Your task to perform on an android device: turn on showing notifications on the lock screen Image 0: 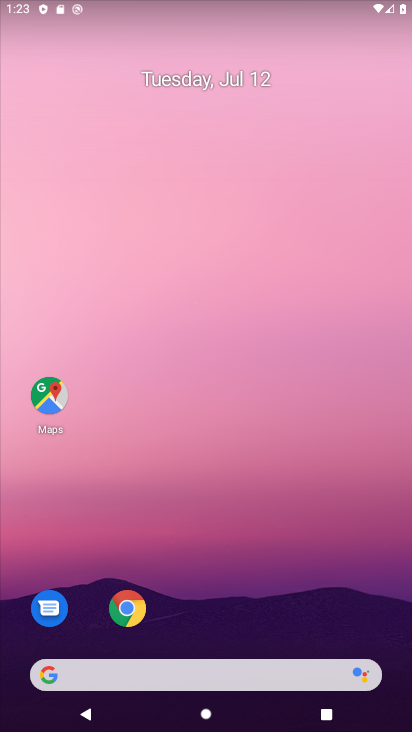
Step 0: drag from (293, 292) to (330, 29)
Your task to perform on an android device: turn on showing notifications on the lock screen Image 1: 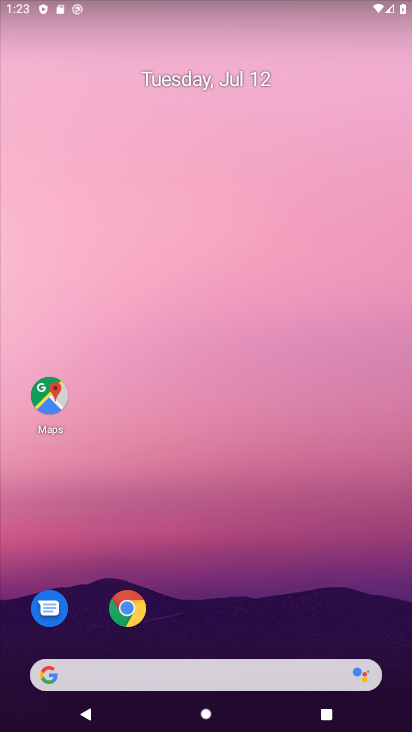
Step 1: drag from (215, 661) to (280, 104)
Your task to perform on an android device: turn on showing notifications on the lock screen Image 2: 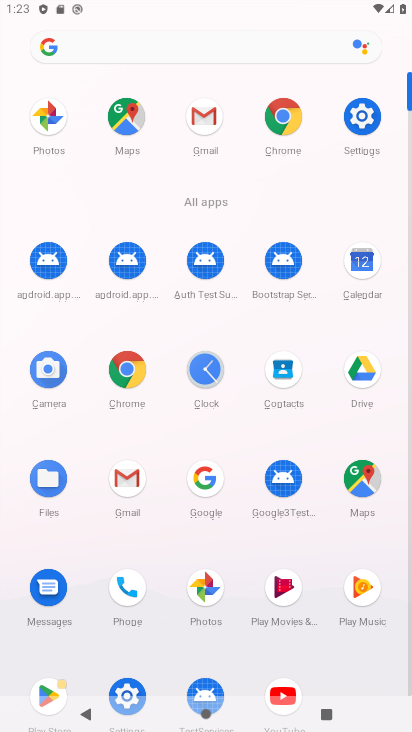
Step 2: click (127, 686)
Your task to perform on an android device: turn on showing notifications on the lock screen Image 3: 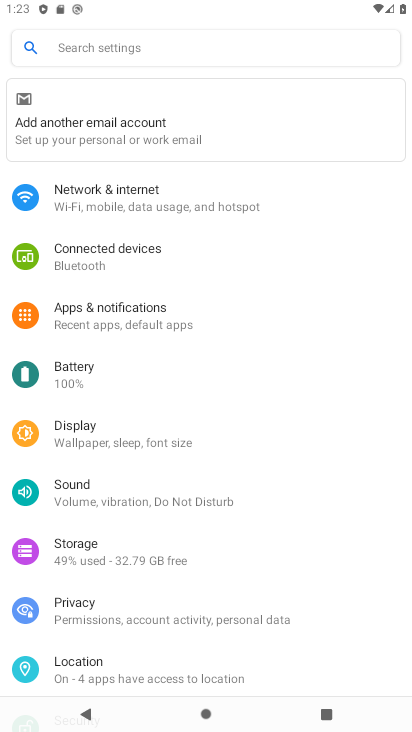
Step 3: click (183, 328)
Your task to perform on an android device: turn on showing notifications on the lock screen Image 4: 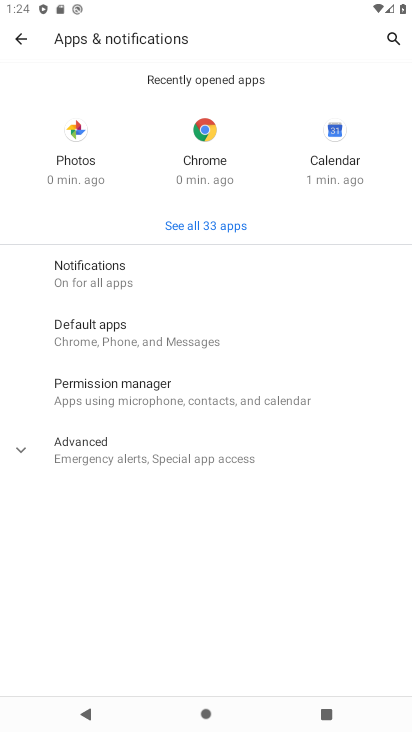
Step 4: click (148, 284)
Your task to perform on an android device: turn on showing notifications on the lock screen Image 5: 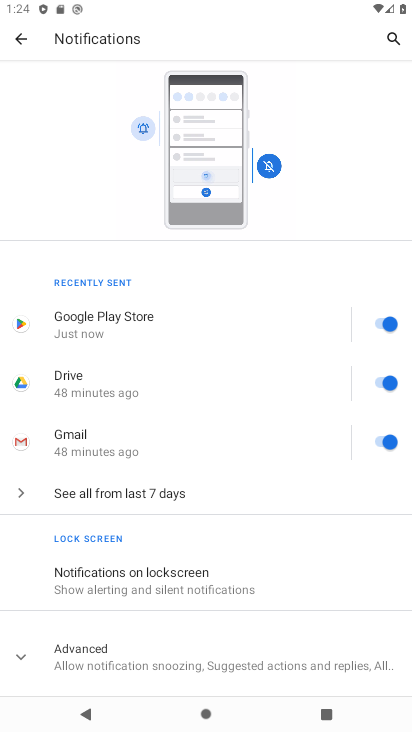
Step 5: click (215, 593)
Your task to perform on an android device: turn on showing notifications on the lock screen Image 6: 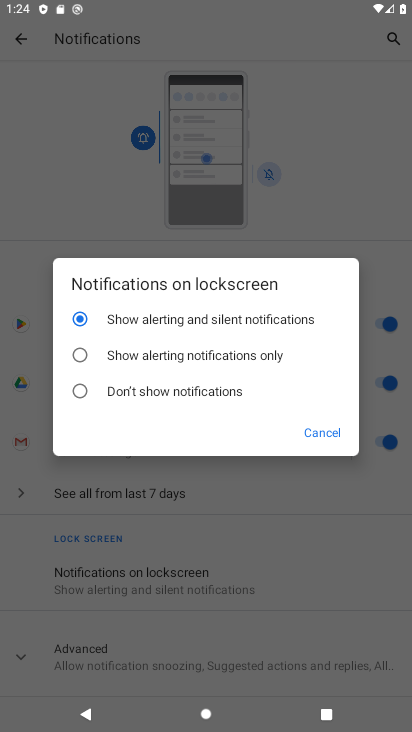
Step 6: task complete